Your task to perform on an android device: Open my contact list Image 0: 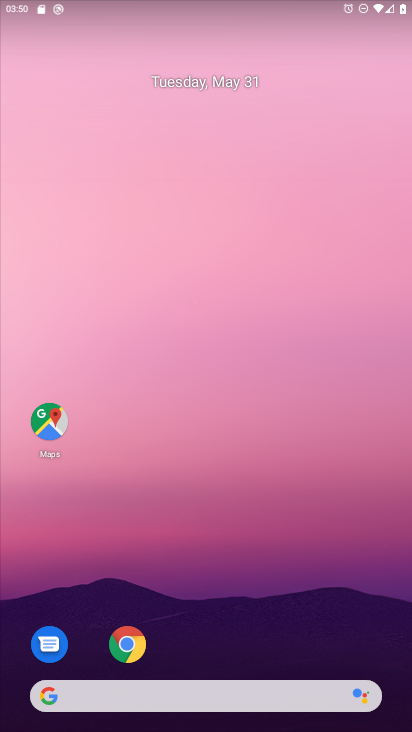
Step 0: drag from (295, 615) to (259, 109)
Your task to perform on an android device: Open my contact list Image 1: 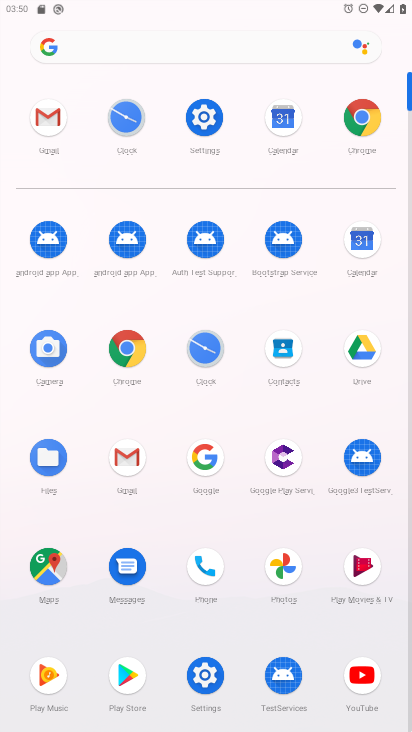
Step 1: click (287, 342)
Your task to perform on an android device: Open my contact list Image 2: 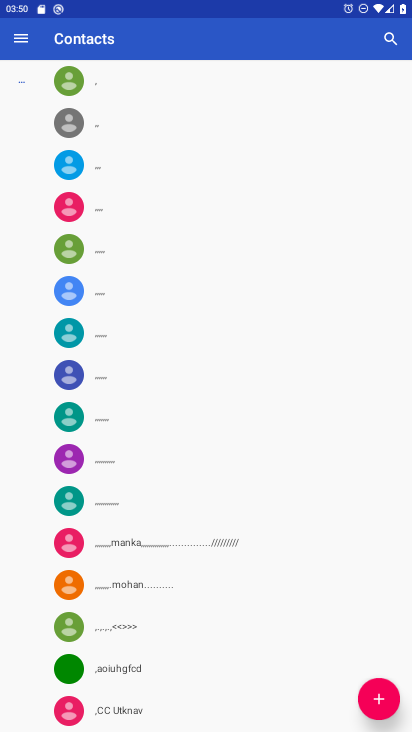
Step 2: task complete